Your task to perform on an android device: Search for Italian restaurants on Maps Image 0: 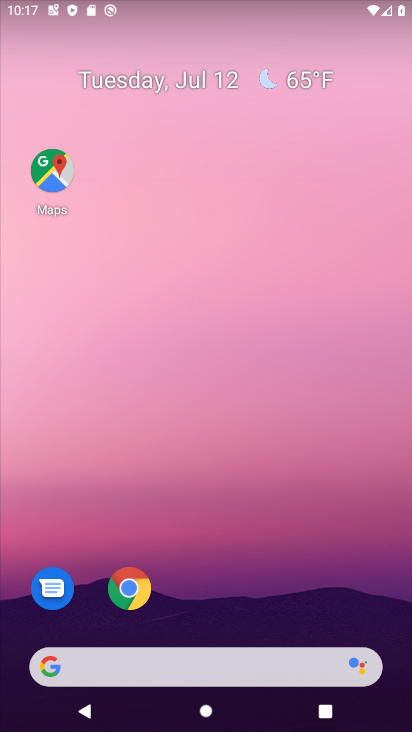
Step 0: click (18, 191)
Your task to perform on an android device: Search for Italian restaurants on Maps Image 1: 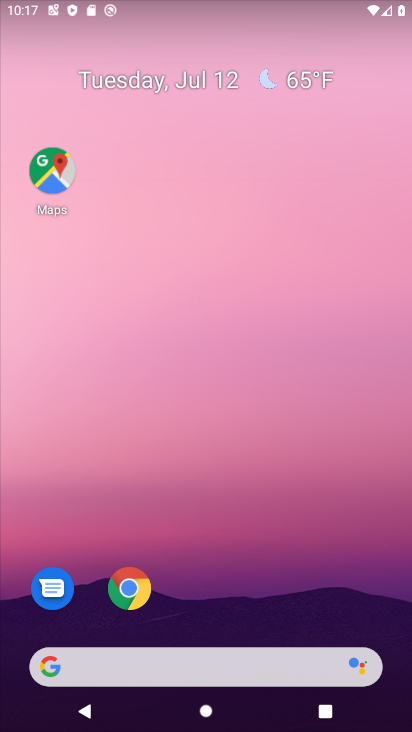
Step 1: click (51, 180)
Your task to perform on an android device: Search for Italian restaurants on Maps Image 2: 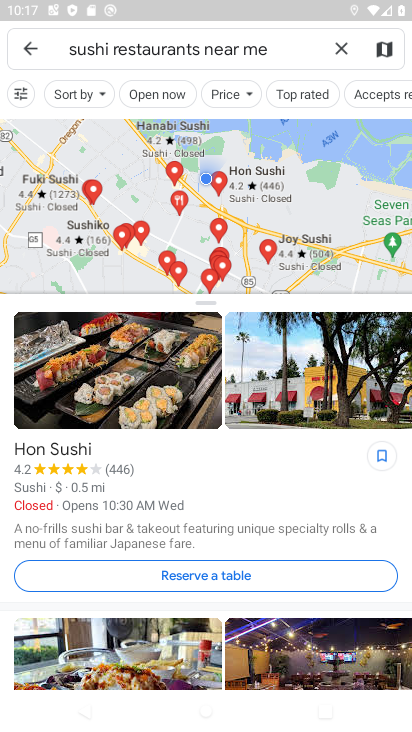
Step 2: click (332, 47)
Your task to perform on an android device: Search for Italian restaurants on Maps Image 3: 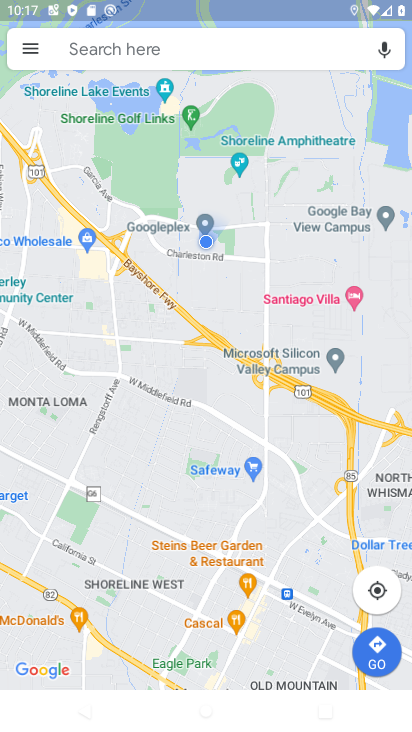
Step 3: click (75, 51)
Your task to perform on an android device: Search for Italian restaurants on Maps Image 4: 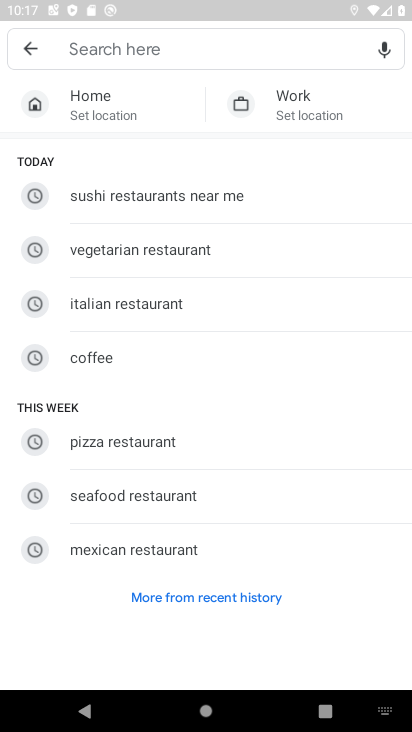
Step 4: click (101, 311)
Your task to perform on an android device: Search for Italian restaurants on Maps Image 5: 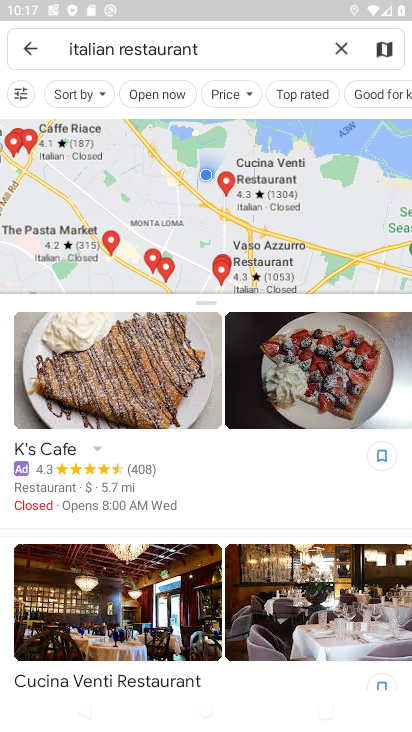
Step 5: task complete